Your task to perform on an android device: Open accessibility settings Image 0: 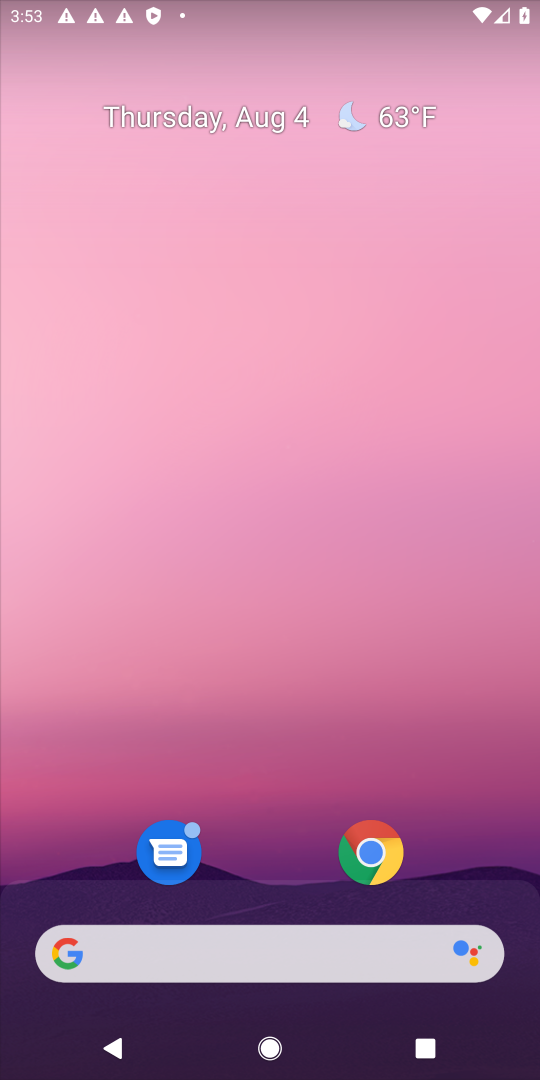
Step 0: drag from (277, 930) to (272, 106)
Your task to perform on an android device: Open accessibility settings Image 1: 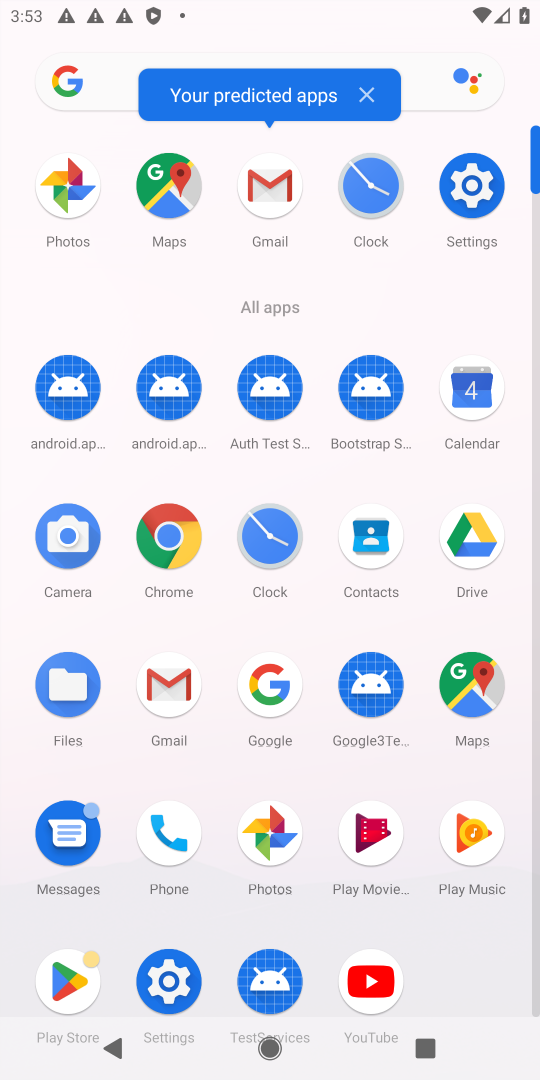
Step 1: click (479, 179)
Your task to perform on an android device: Open accessibility settings Image 2: 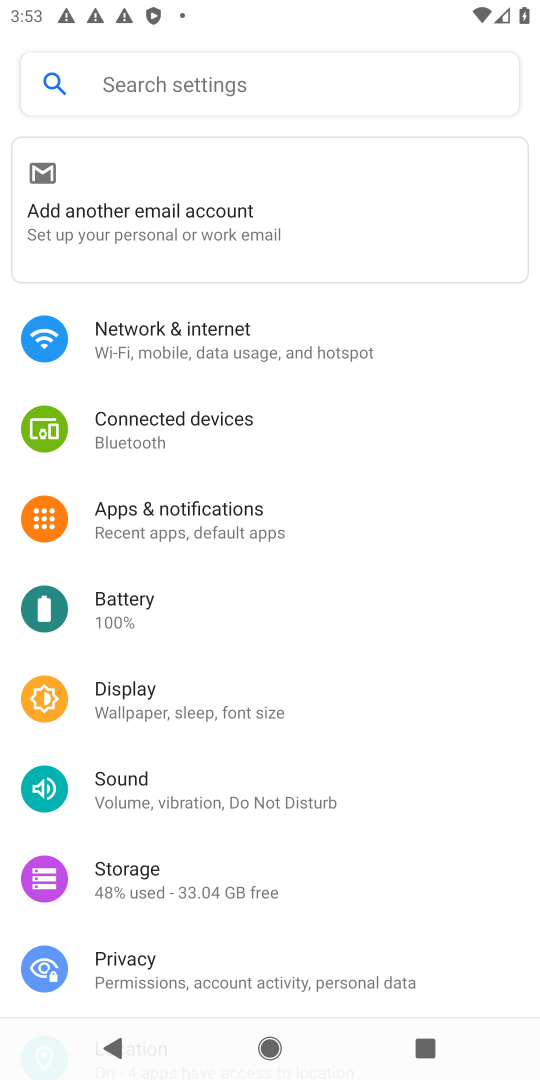
Step 2: drag from (157, 940) to (208, 395)
Your task to perform on an android device: Open accessibility settings Image 3: 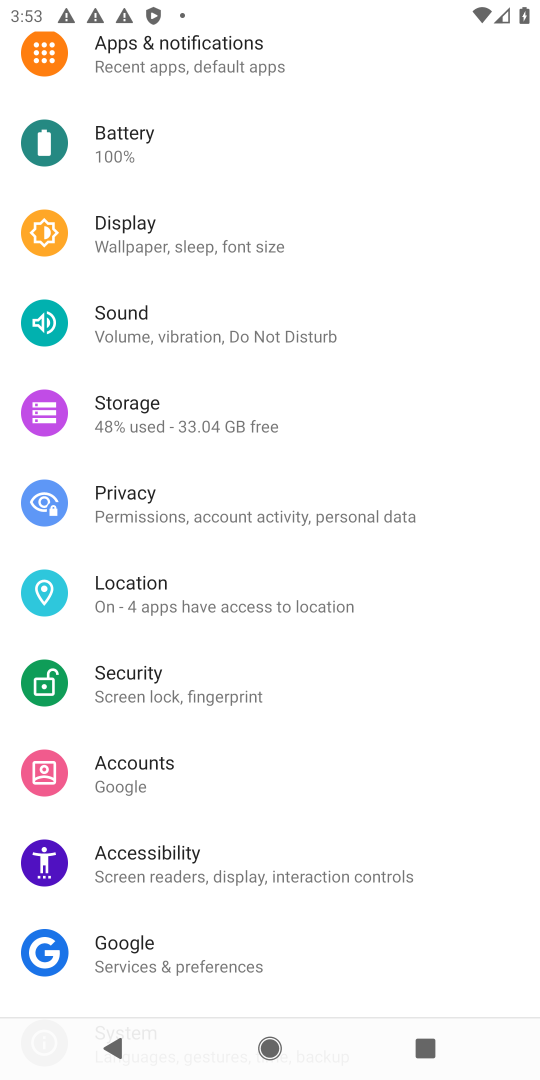
Step 3: click (143, 859)
Your task to perform on an android device: Open accessibility settings Image 4: 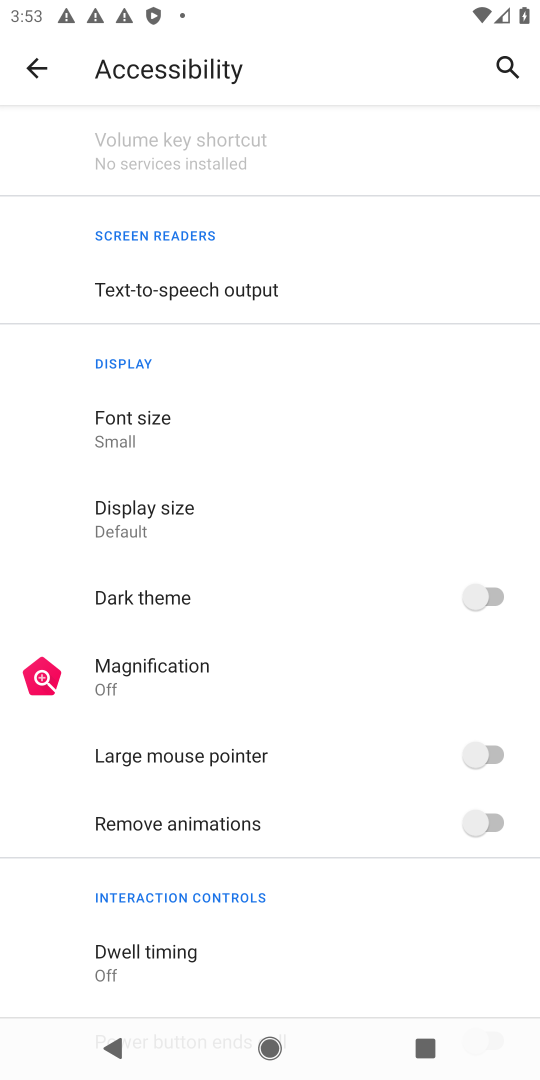
Step 4: task complete